Your task to perform on an android device: Go to internet settings Image 0: 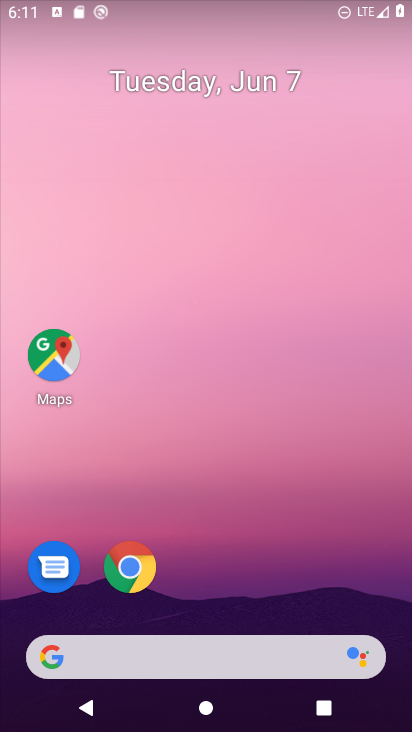
Step 0: drag from (301, 651) to (243, 47)
Your task to perform on an android device: Go to internet settings Image 1: 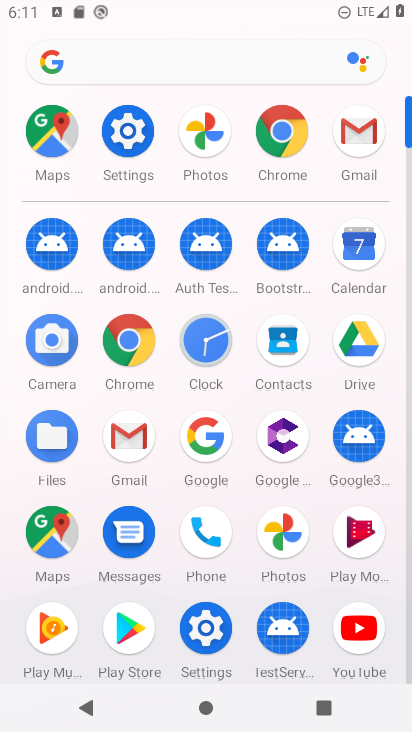
Step 1: click (138, 131)
Your task to perform on an android device: Go to internet settings Image 2: 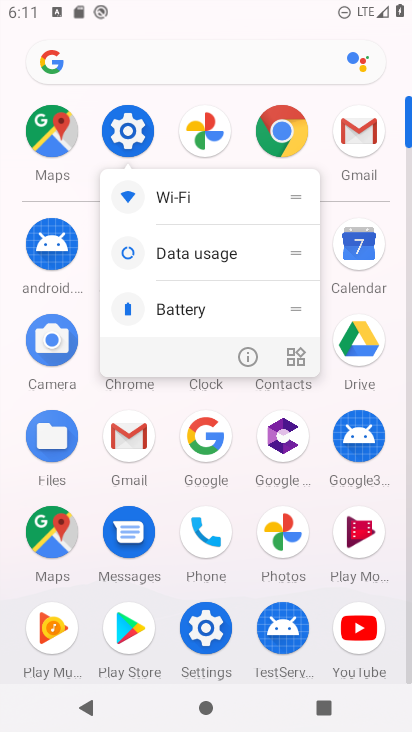
Step 2: click (135, 132)
Your task to perform on an android device: Go to internet settings Image 3: 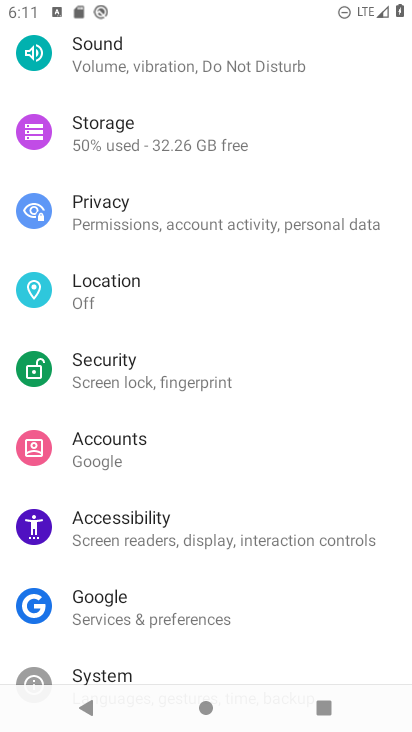
Step 3: drag from (201, 101) to (202, 659)
Your task to perform on an android device: Go to internet settings Image 4: 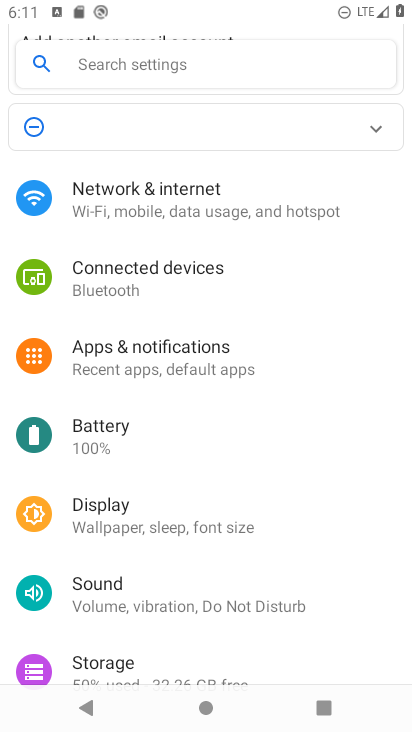
Step 4: click (201, 184)
Your task to perform on an android device: Go to internet settings Image 5: 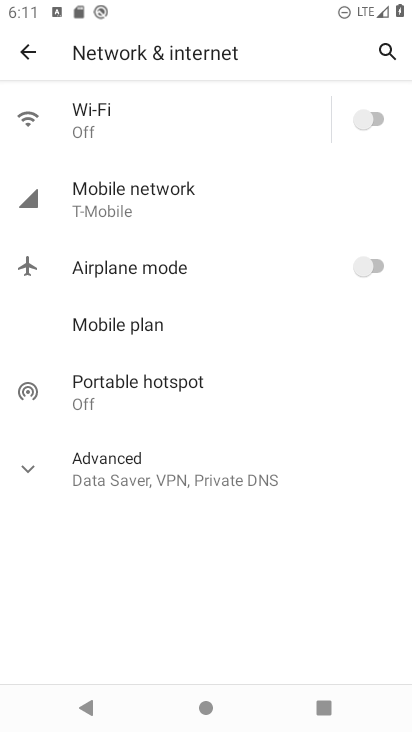
Step 5: task complete